Your task to perform on an android device: Go to privacy settings Image 0: 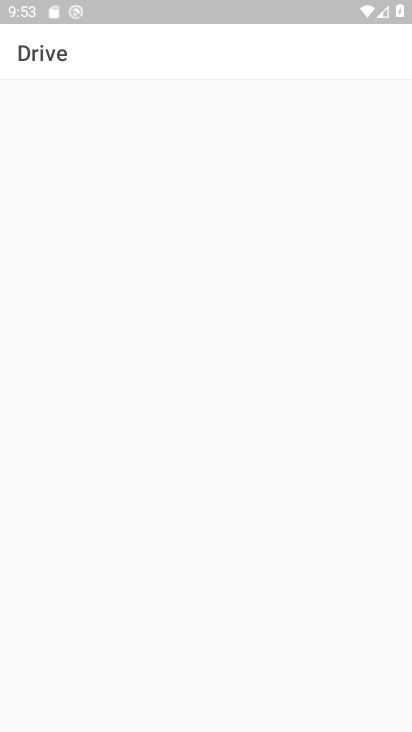
Step 0: press home button
Your task to perform on an android device: Go to privacy settings Image 1: 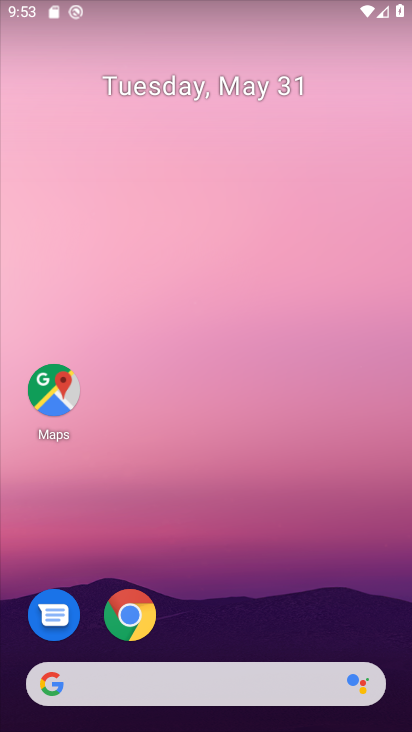
Step 1: drag from (273, 635) to (273, 0)
Your task to perform on an android device: Go to privacy settings Image 2: 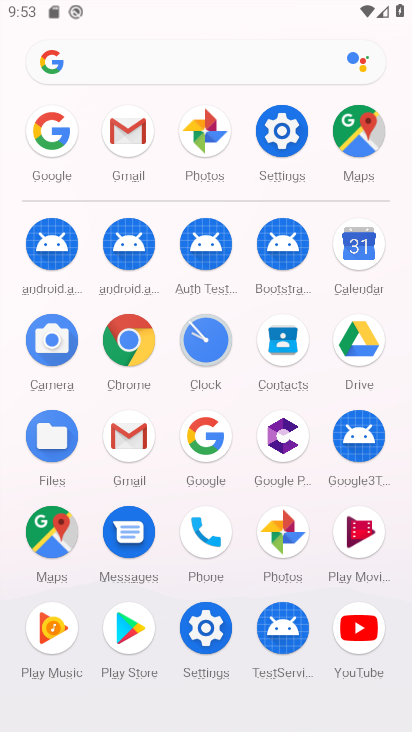
Step 2: click (278, 124)
Your task to perform on an android device: Go to privacy settings Image 3: 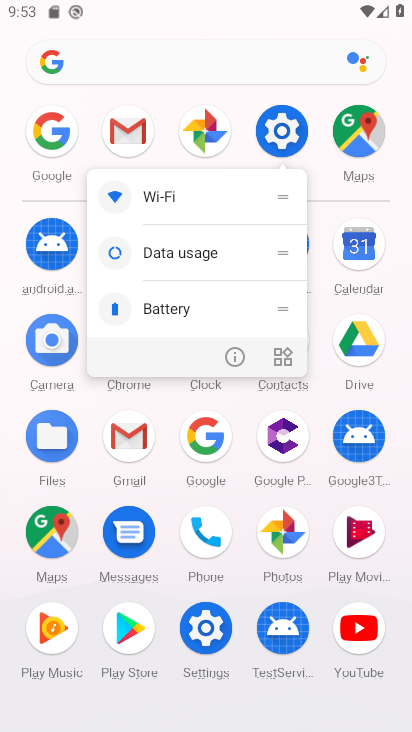
Step 3: click (293, 133)
Your task to perform on an android device: Go to privacy settings Image 4: 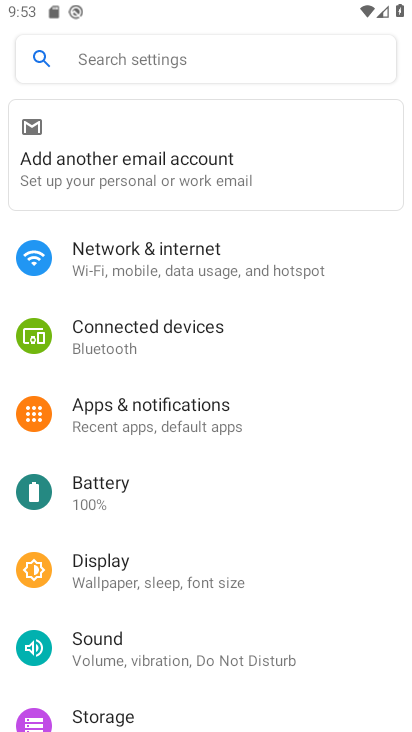
Step 4: drag from (183, 605) to (198, 198)
Your task to perform on an android device: Go to privacy settings Image 5: 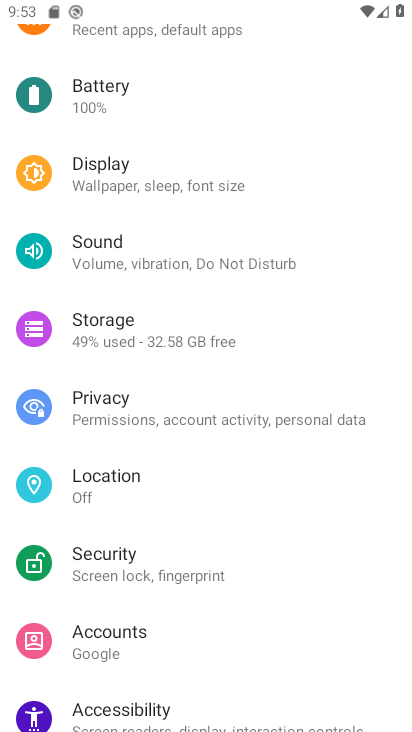
Step 5: click (104, 400)
Your task to perform on an android device: Go to privacy settings Image 6: 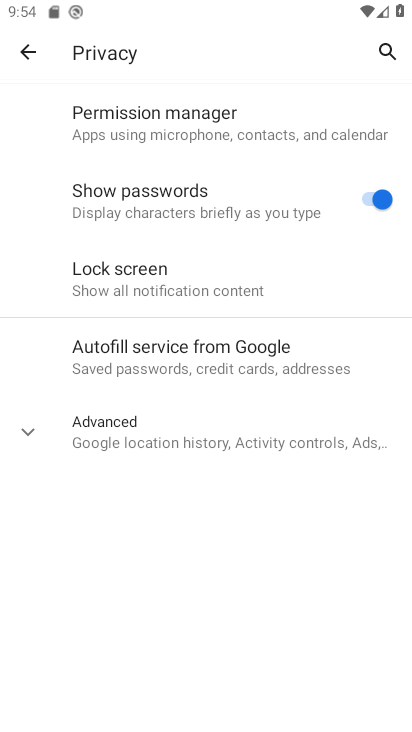
Step 6: task complete